Your task to perform on an android device: Go to settings Image 0: 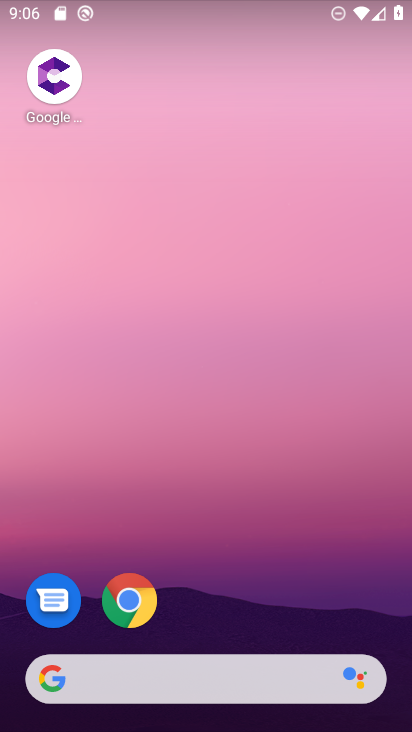
Step 0: drag from (194, 654) to (194, 212)
Your task to perform on an android device: Go to settings Image 1: 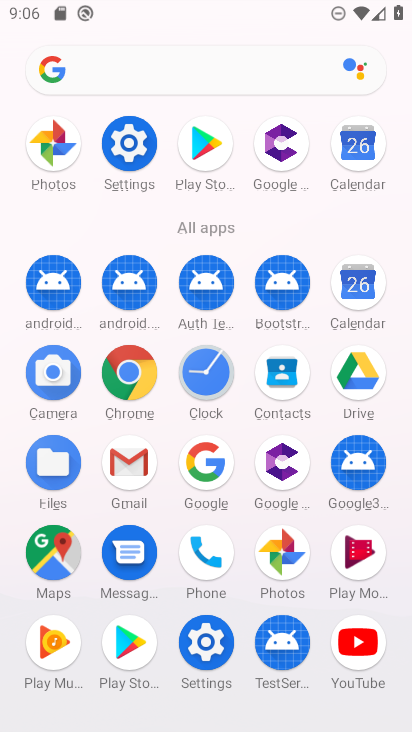
Step 1: click (122, 147)
Your task to perform on an android device: Go to settings Image 2: 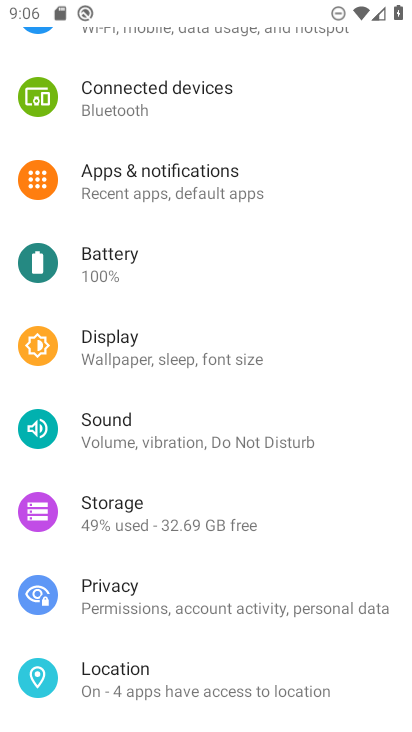
Step 2: task complete